Your task to perform on an android device: Go to Wikipedia Image 0: 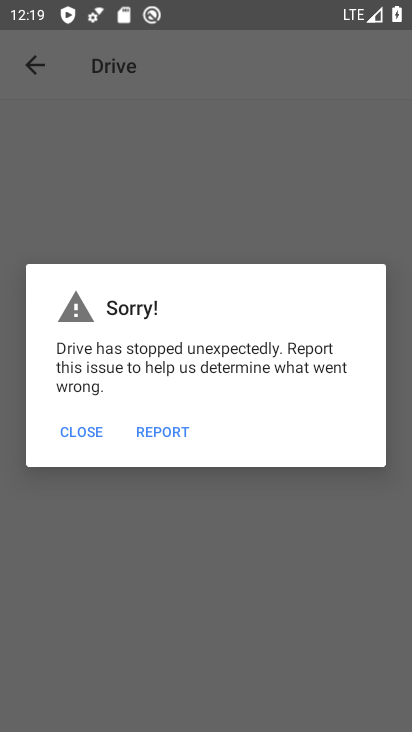
Step 0: press home button
Your task to perform on an android device: Go to Wikipedia Image 1: 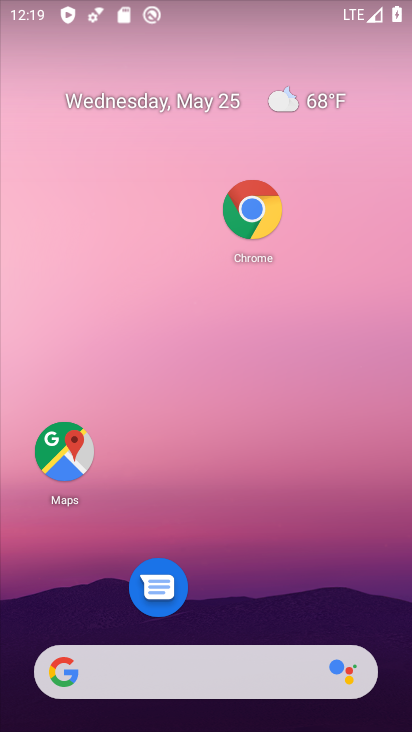
Step 1: drag from (240, 627) to (244, 175)
Your task to perform on an android device: Go to Wikipedia Image 2: 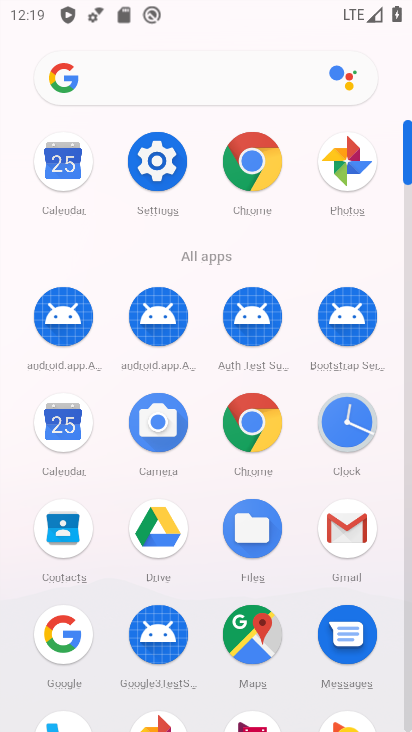
Step 2: click (265, 159)
Your task to perform on an android device: Go to Wikipedia Image 3: 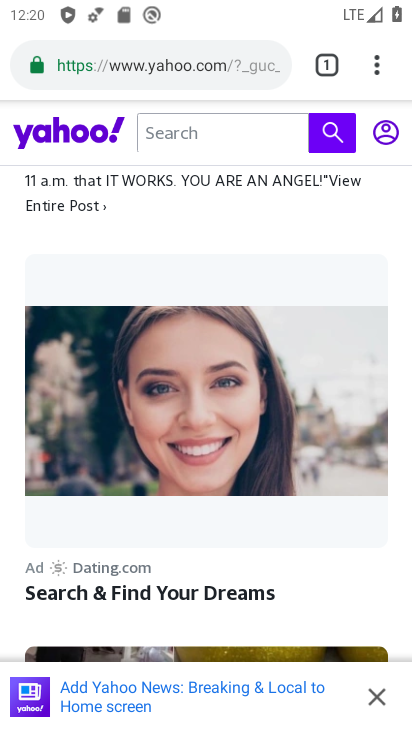
Step 3: click (323, 59)
Your task to perform on an android device: Go to Wikipedia Image 4: 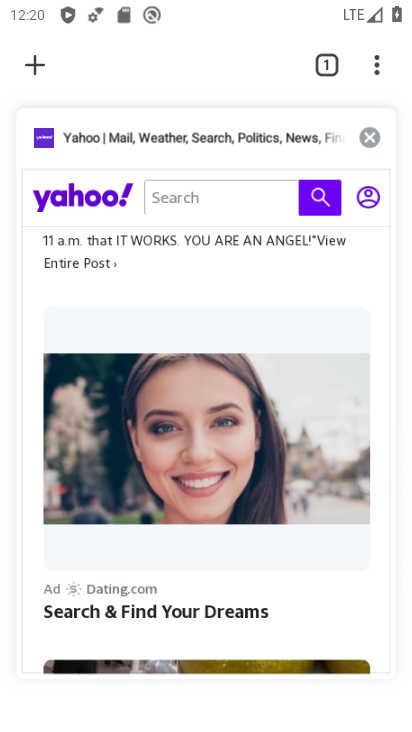
Step 4: click (372, 132)
Your task to perform on an android device: Go to Wikipedia Image 5: 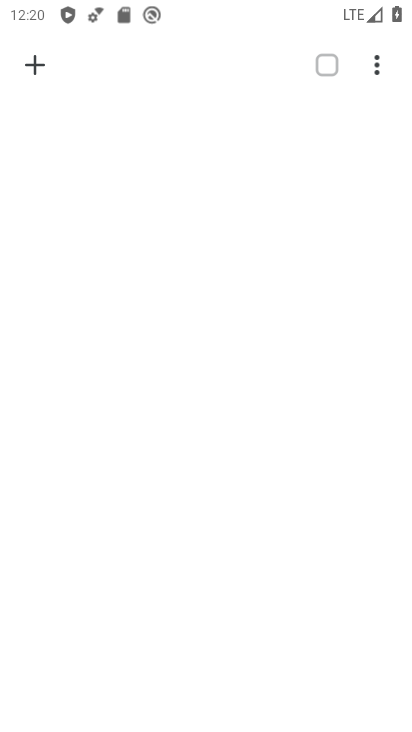
Step 5: click (39, 65)
Your task to perform on an android device: Go to Wikipedia Image 6: 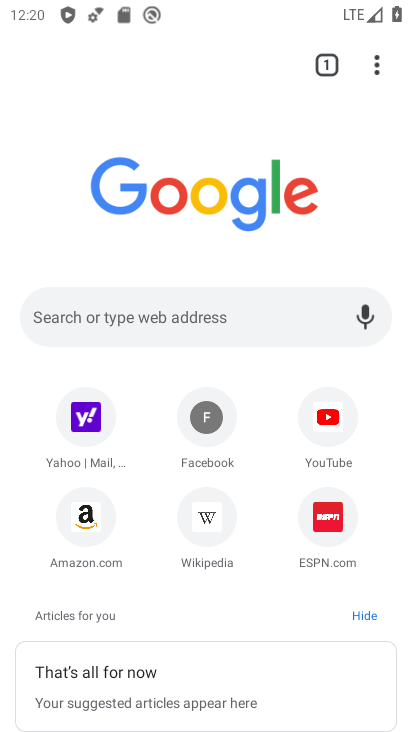
Step 6: click (205, 510)
Your task to perform on an android device: Go to Wikipedia Image 7: 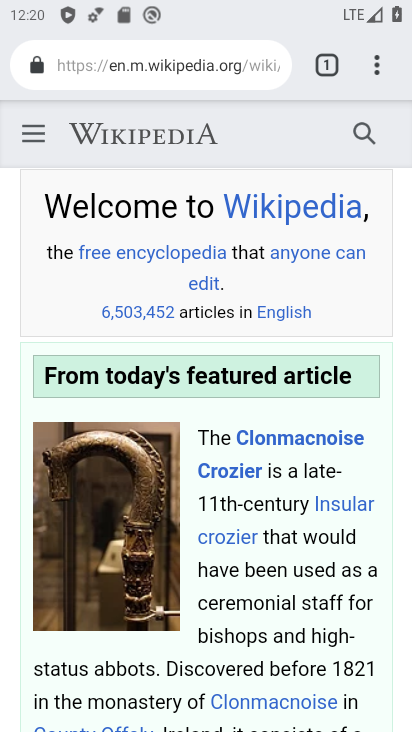
Step 7: task complete